Your task to perform on an android device: Go to internet settings Image 0: 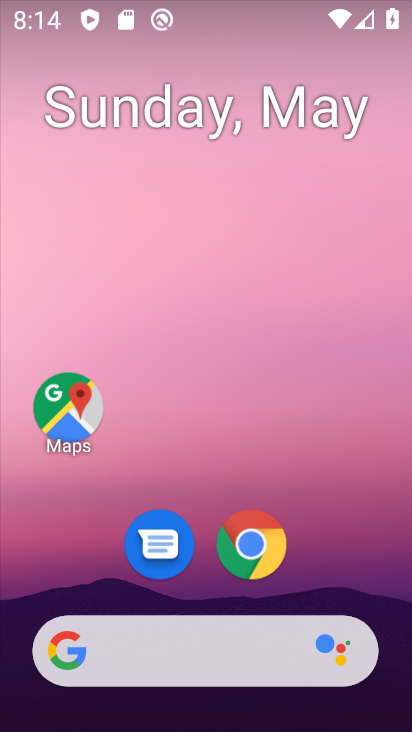
Step 0: drag from (348, 474) to (125, 3)
Your task to perform on an android device: Go to internet settings Image 1: 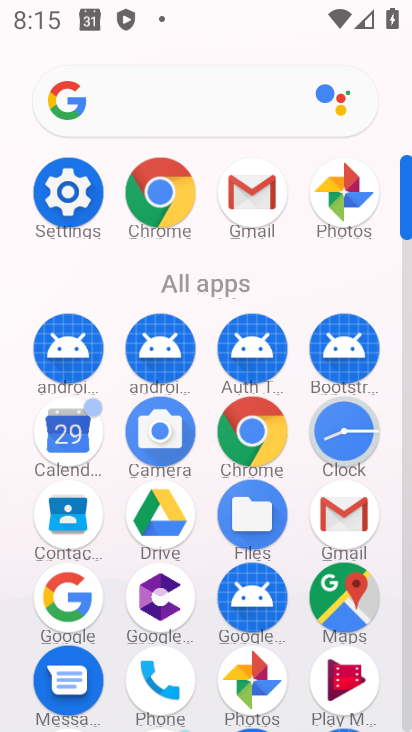
Step 1: click (73, 181)
Your task to perform on an android device: Go to internet settings Image 2: 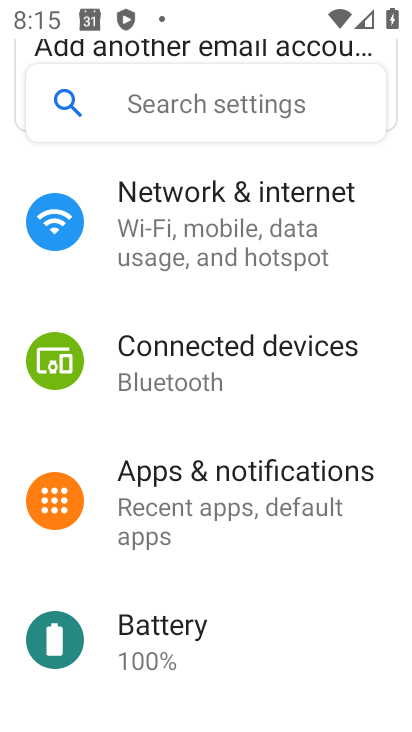
Step 2: click (156, 200)
Your task to perform on an android device: Go to internet settings Image 3: 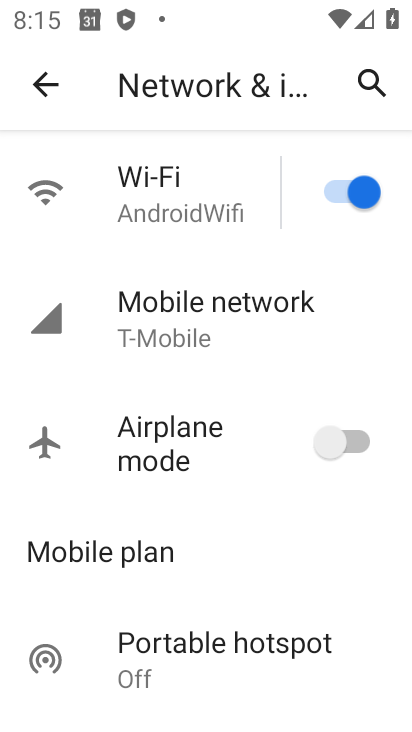
Step 3: task complete